Your task to perform on an android device: turn off airplane mode Image 0: 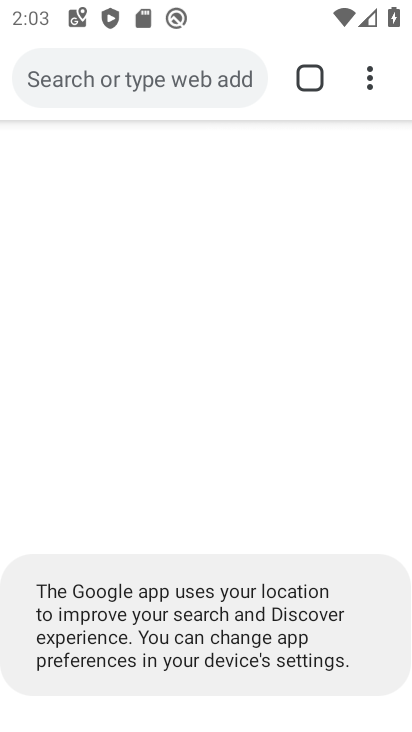
Step 0: press home button
Your task to perform on an android device: turn off airplane mode Image 1: 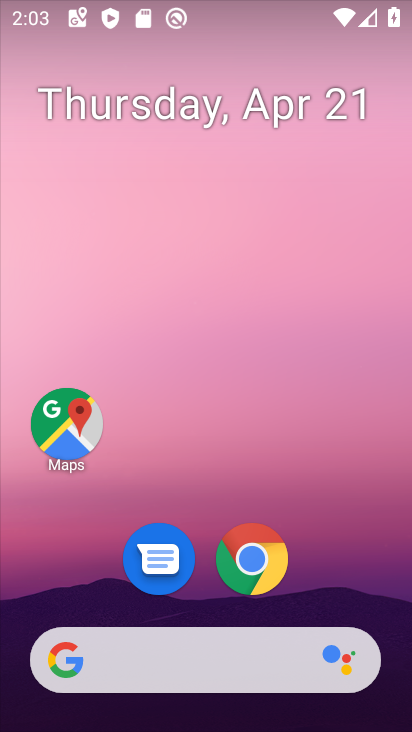
Step 1: drag from (206, 498) to (184, 112)
Your task to perform on an android device: turn off airplane mode Image 2: 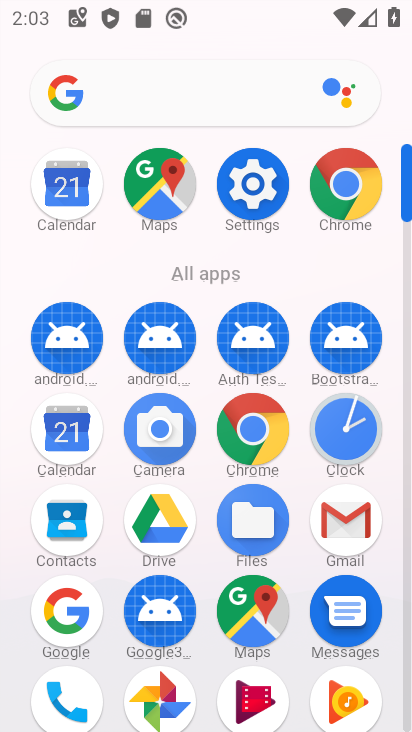
Step 2: click (252, 182)
Your task to perform on an android device: turn off airplane mode Image 3: 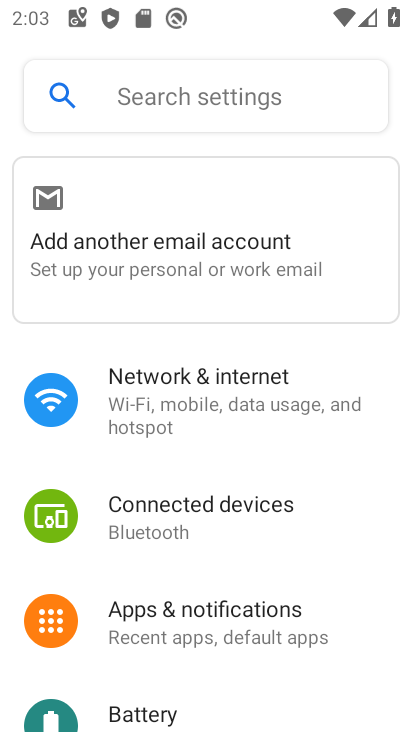
Step 3: drag from (238, 558) to (223, 371)
Your task to perform on an android device: turn off airplane mode Image 4: 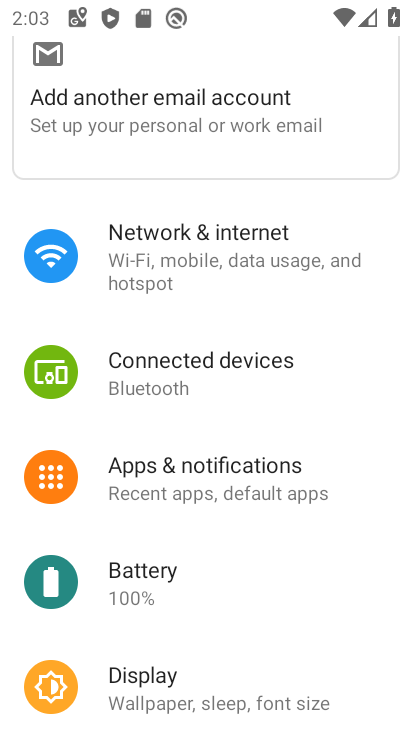
Step 4: click (204, 252)
Your task to perform on an android device: turn off airplane mode Image 5: 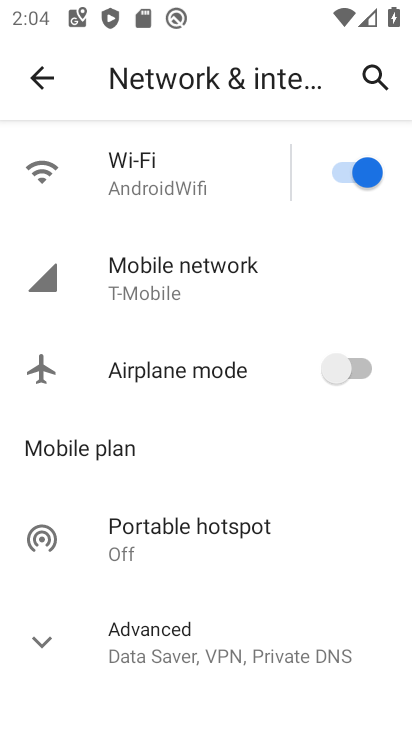
Step 5: task complete